Your task to perform on an android device: Search for Italian restaurants on Maps Image 0: 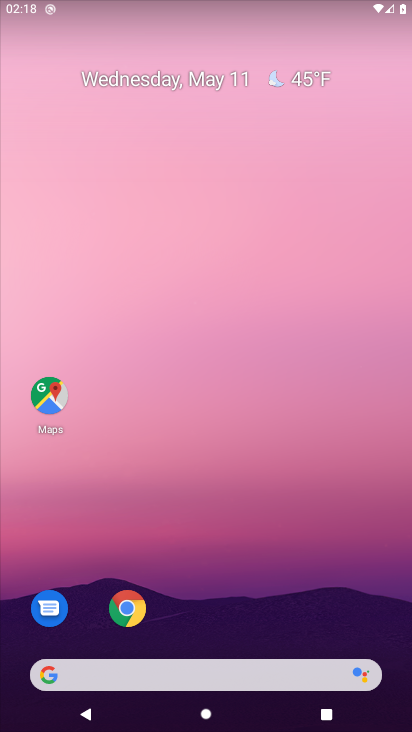
Step 0: press home button
Your task to perform on an android device: Search for Italian restaurants on Maps Image 1: 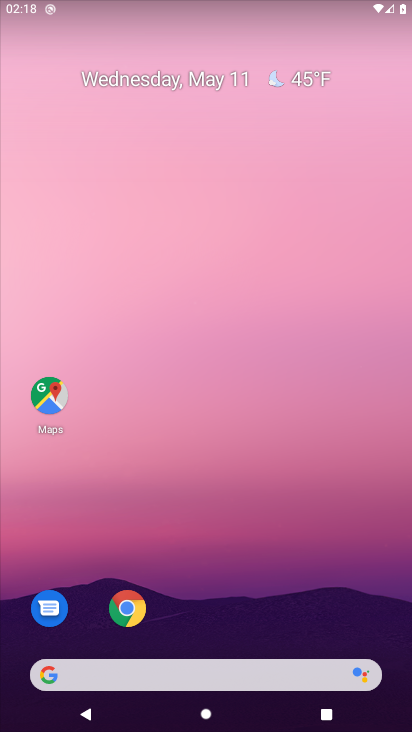
Step 1: click (46, 391)
Your task to perform on an android device: Search for Italian restaurants on Maps Image 2: 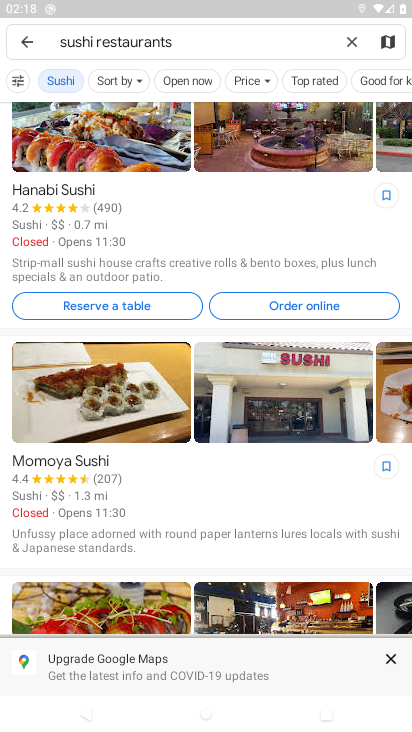
Step 2: click (353, 43)
Your task to perform on an android device: Search for Italian restaurants on Maps Image 3: 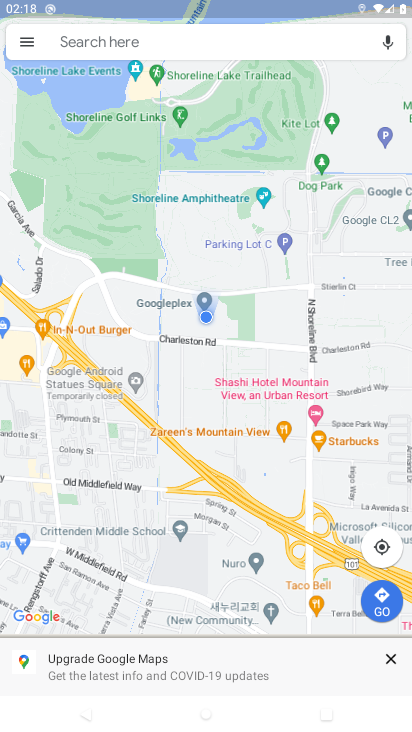
Step 3: click (137, 41)
Your task to perform on an android device: Search for Italian restaurants on Maps Image 4: 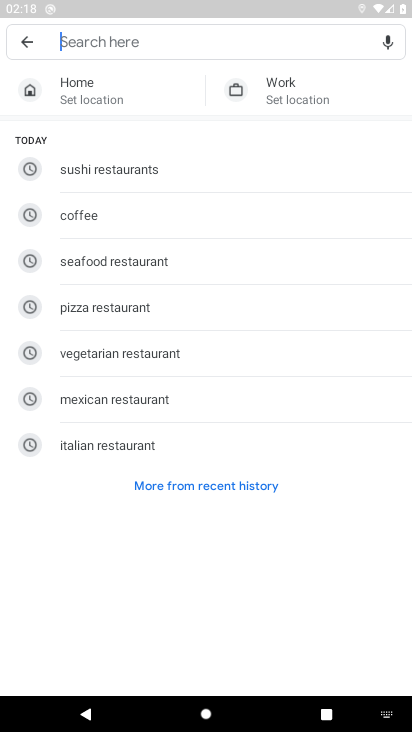
Step 4: click (141, 443)
Your task to perform on an android device: Search for Italian restaurants on Maps Image 5: 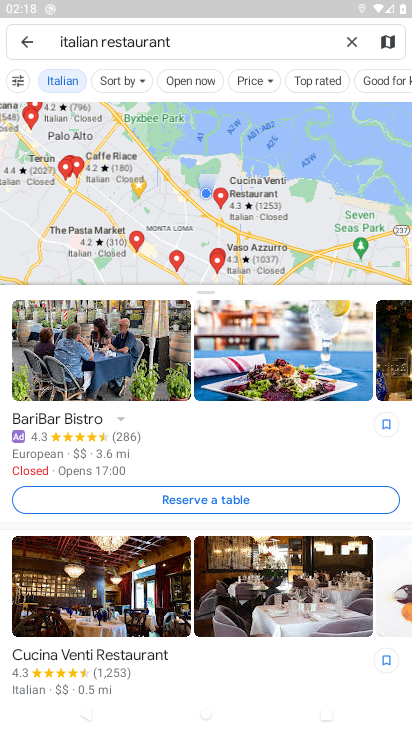
Step 5: task complete